Your task to perform on an android device: Toggle the flashlight Image 0: 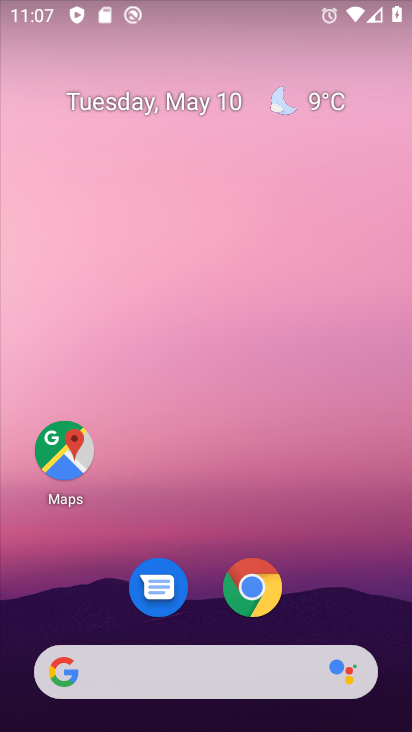
Step 0: drag from (181, 12) to (246, 503)
Your task to perform on an android device: Toggle the flashlight Image 1: 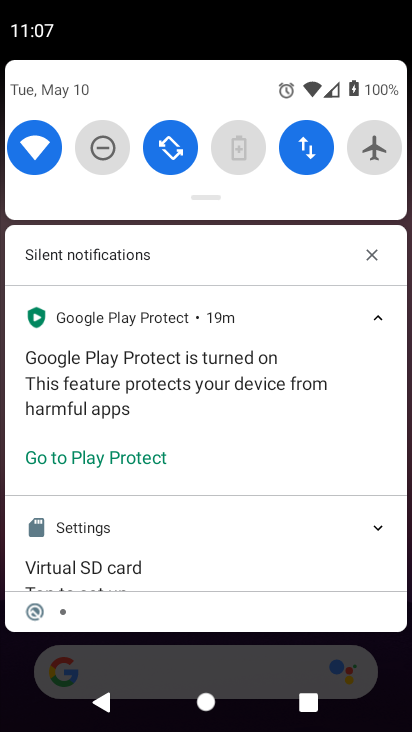
Step 1: task complete